Your task to perform on an android device: turn off javascript in the chrome app Image 0: 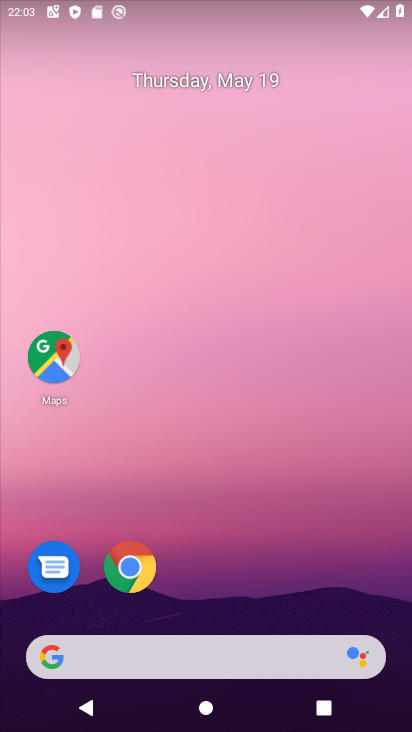
Step 0: press home button
Your task to perform on an android device: turn off javascript in the chrome app Image 1: 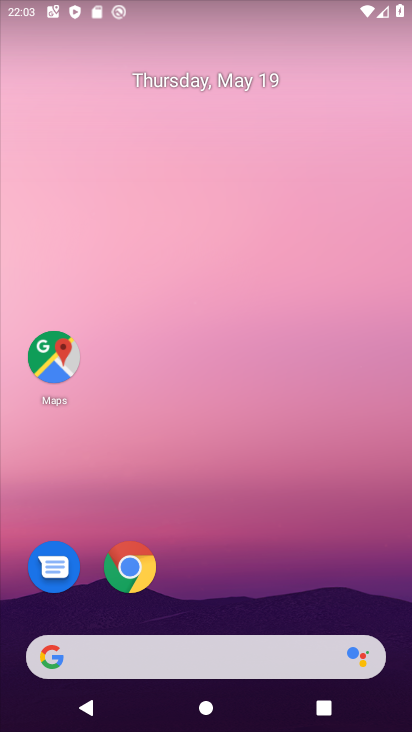
Step 1: click (132, 559)
Your task to perform on an android device: turn off javascript in the chrome app Image 2: 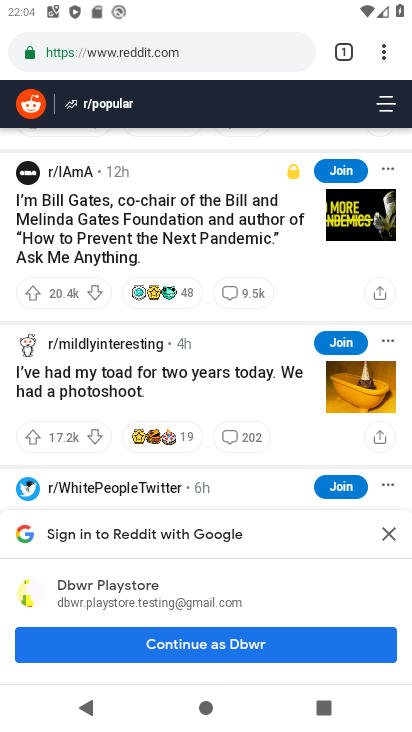
Step 2: click (379, 46)
Your task to perform on an android device: turn off javascript in the chrome app Image 3: 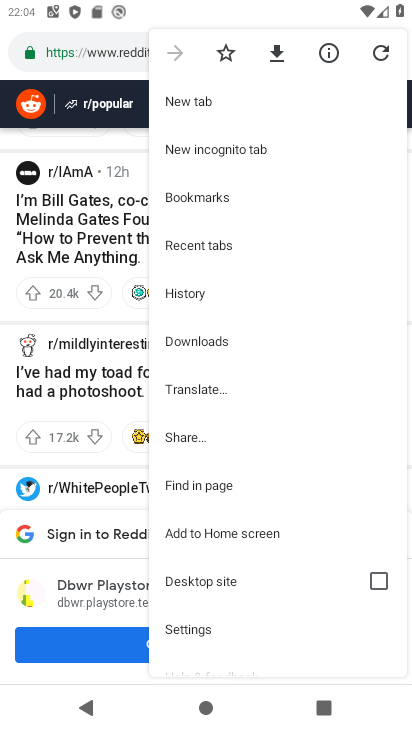
Step 3: click (226, 628)
Your task to perform on an android device: turn off javascript in the chrome app Image 4: 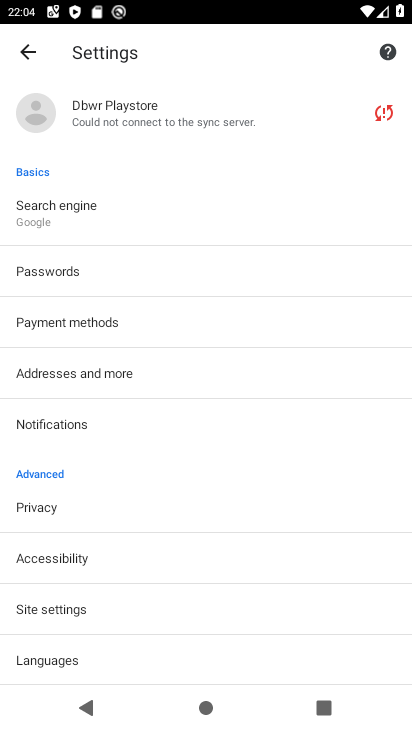
Step 4: click (100, 605)
Your task to perform on an android device: turn off javascript in the chrome app Image 5: 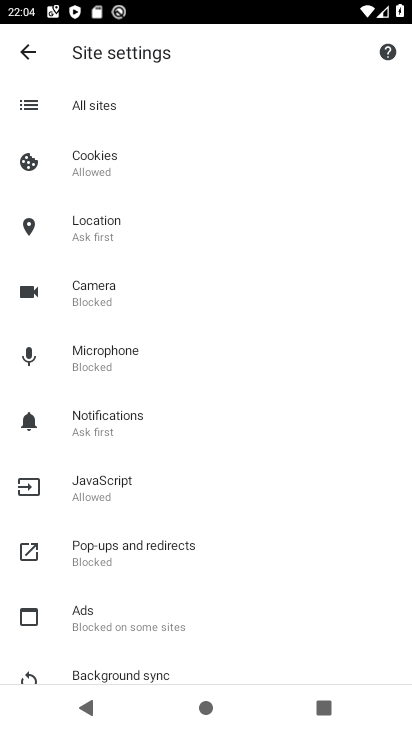
Step 5: click (120, 518)
Your task to perform on an android device: turn off javascript in the chrome app Image 6: 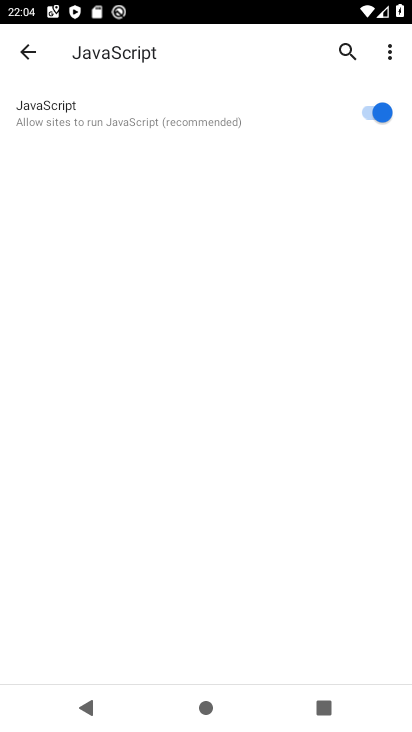
Step 6: click (373, 104)
Your task to perform on an android device: turn off javascript in the chrome app Image 7: 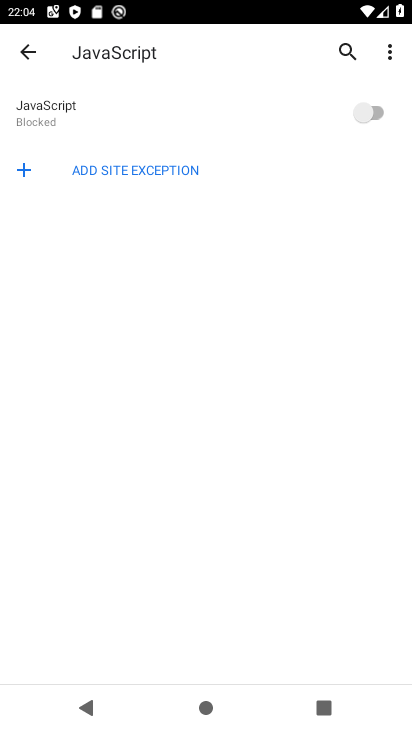
Step 7: task complete